Your task to perform on an android device: delete browsing data in the chrome app Image 0: 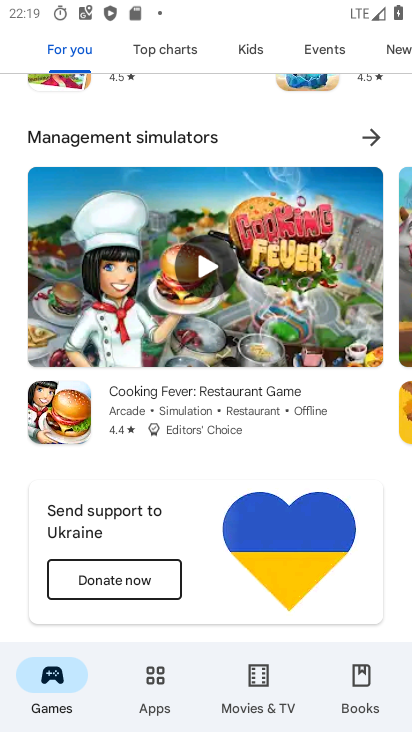
Step 0: press home button
Your task to perform on an android device: delete browsing data in the chrome app Image 1: 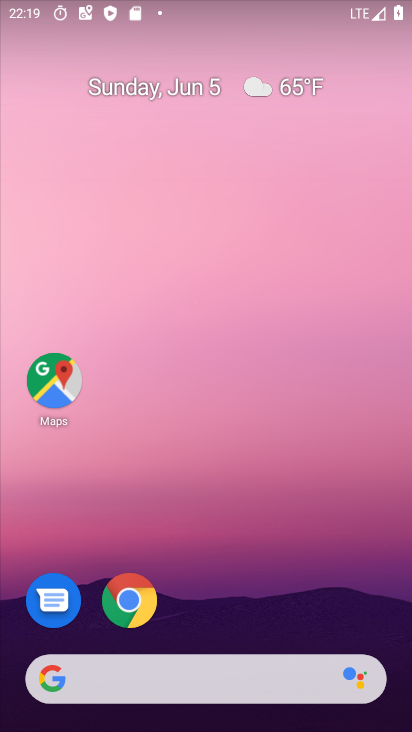
Step 1: click (129, 602)
Your task to perform on an android device: delete browsing data in the chrome app Image 2: 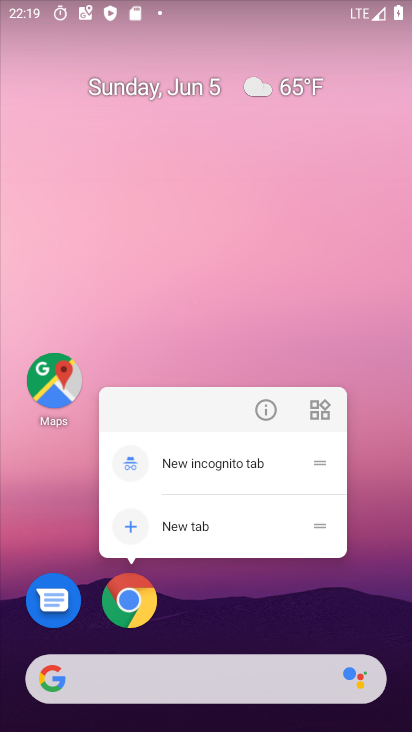
Step 2: click (134, 606)
Your task to perform on an android device: delete browsing data in the chrome app Image 3: 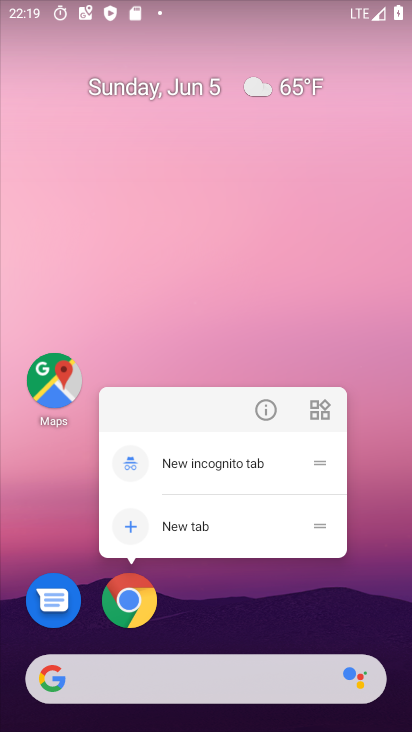
Step 3: click (131, 605)
Your task to perform on an android device: delete browsing data in the chrome app Image 4: 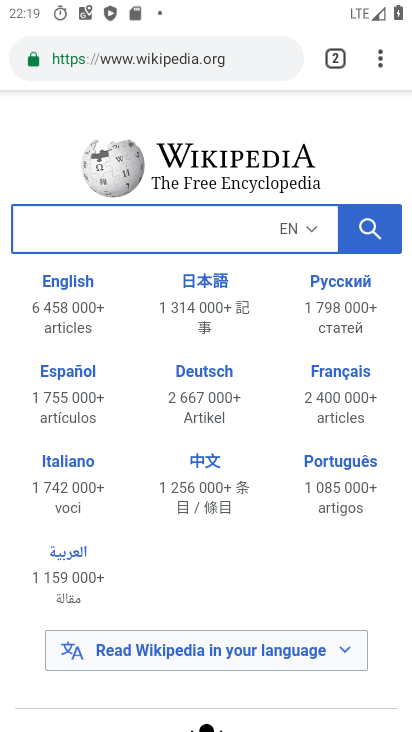
Step 4: drag from (374, 59) to (175, 288)
Your task to perform on an android device: delete browsing data in the chrome app Image 5: 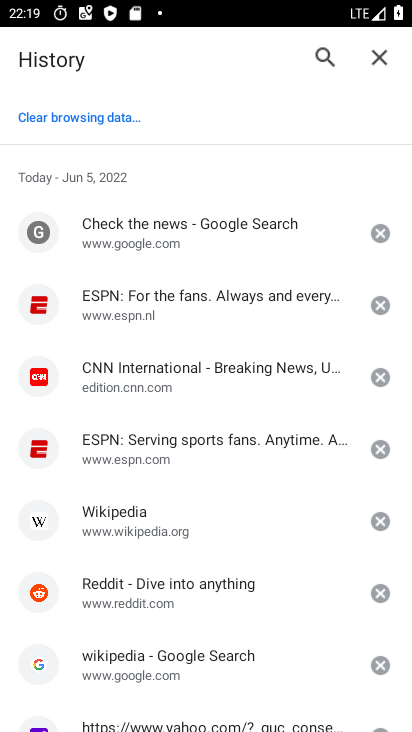
Step 5: click (120, 120)
Your task to perform on an android device: delete browsing data in the chrome app Image 6: 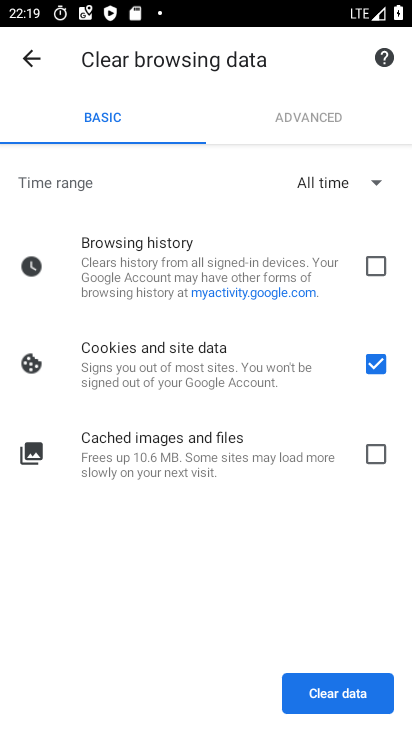
Step 6: click (364, 457)
Your task to perform on an android device: delete browsing data in the chrome app Image 7: 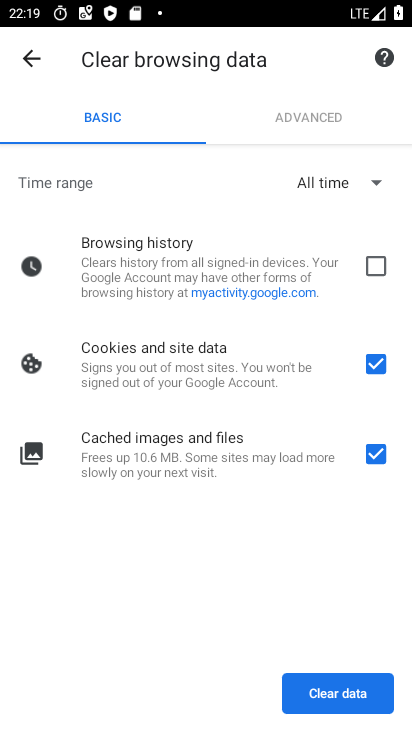
Step 7: click (376, 270)
Your task to perform on an android device: delete browsing data in the chrome app Image 8: 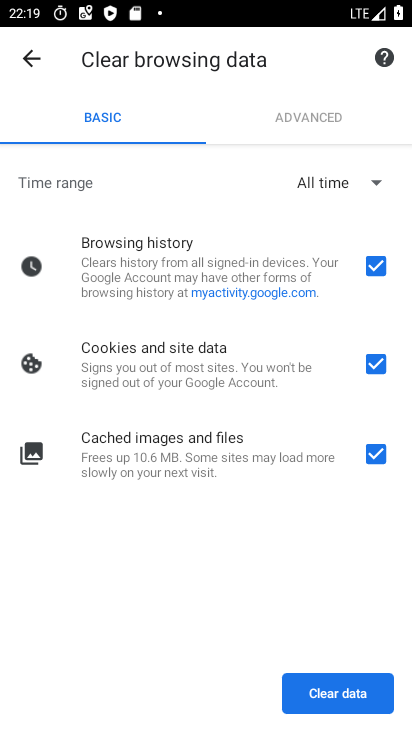
Step 8: click (357, 699)
Your task to perform on an android device: delete browsing data in the chrome app Image 9: 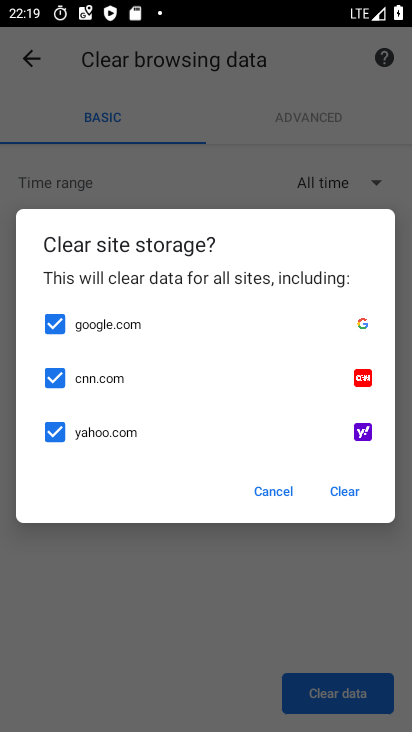
Step 9: click (341, 492)
Your task to perform on an android device: delete browsing data in the chrome app Image 10: 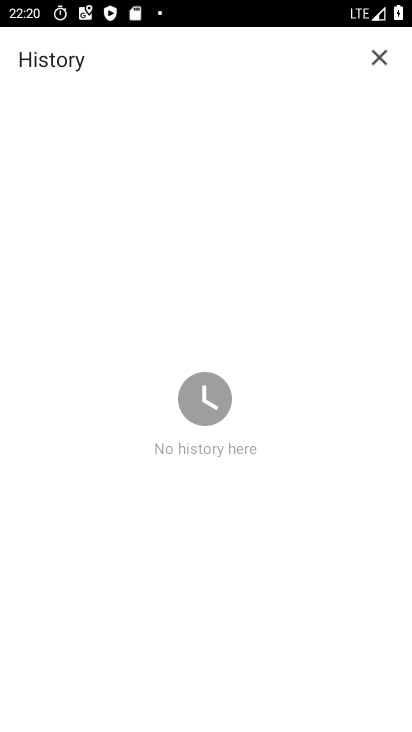
Step 10: task complete